Your task to perform on an android device: Open wifi settings Image 0: 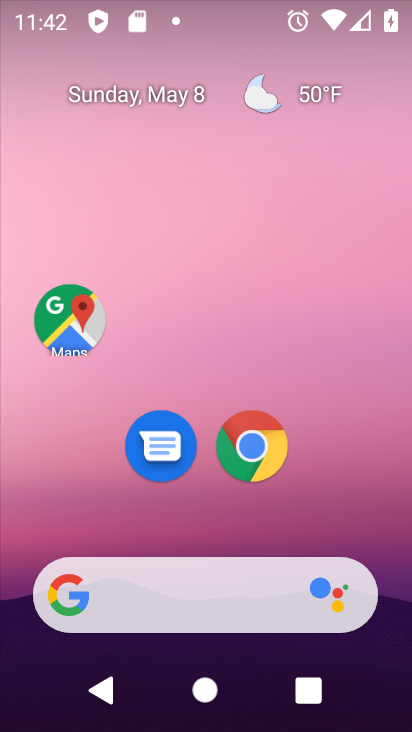
Step 0: drag from (310, 517) to (209, 18)
Your task to perform on an android device: Open wifi settings Image 1: 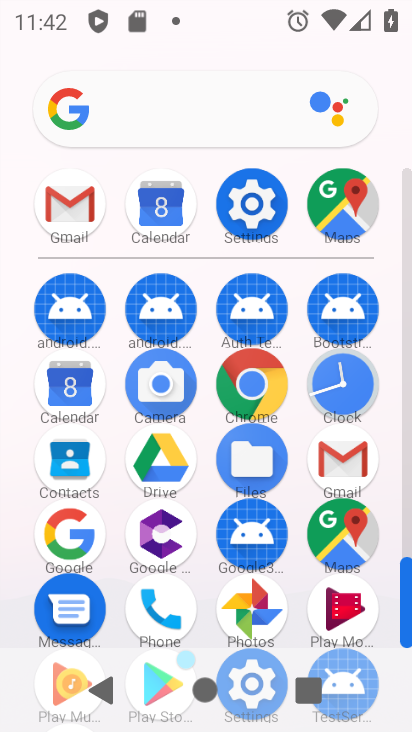
Step 1: click (251, 191)
Your task to perform on an android device: Open wifi settings Image 2: 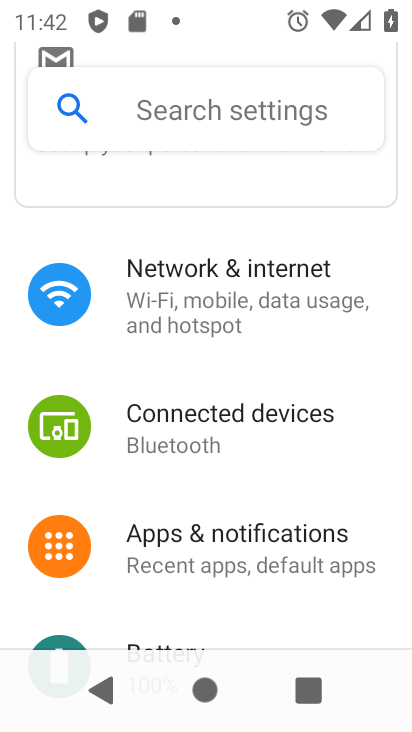
Step 2: click (205, 307)
Your task to perform on an android device: Open wifi settings Image 3: 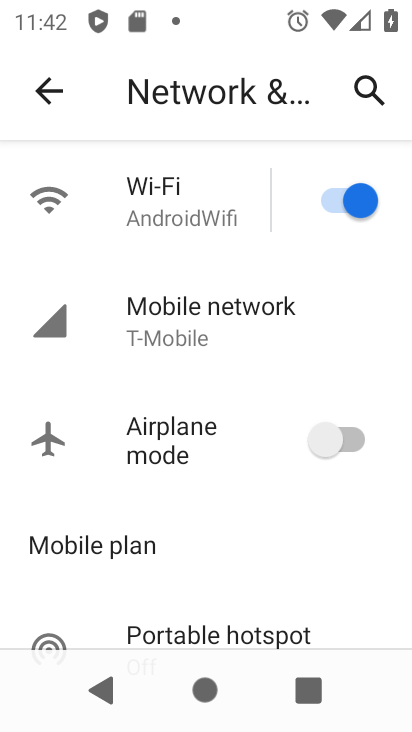
Step 3: click (149, 213)
Your task to perform on an android device: Open wifi settings Image 4: 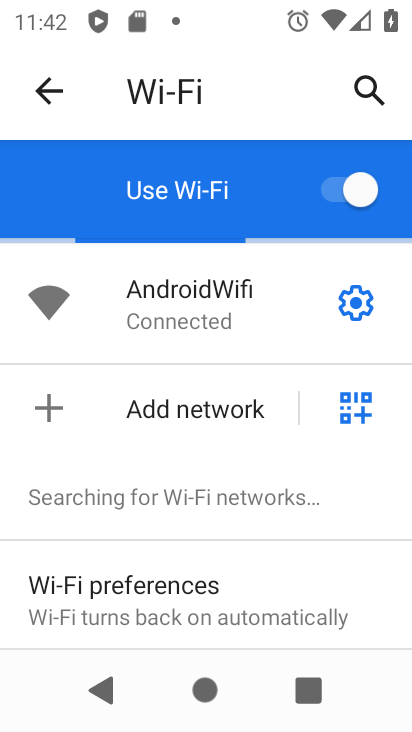
Step 4: task complete